Your task to perform on an android device: turn vacation reply on in the gmail app Image 0: 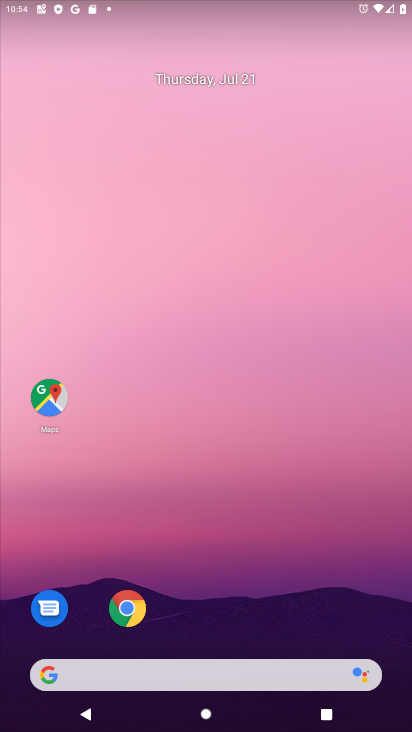
Step 0: drag from (301, 531) to (151, 3)
Your task to perform on an android device: turn vacation reply on in the gmail app Image 1: 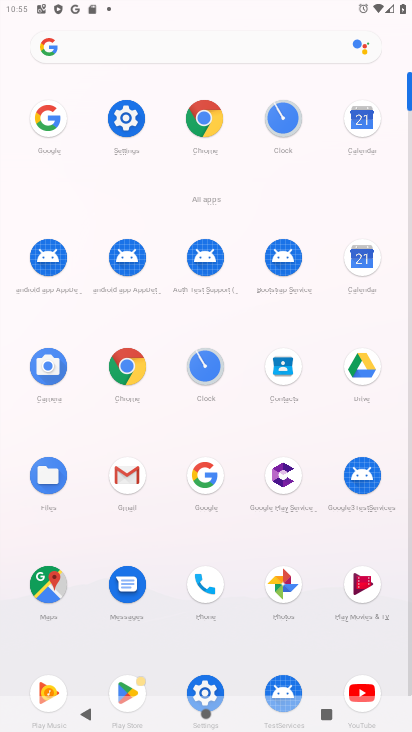
Step 1: click (127, 487)
Your task to perform on an android device: turn vacation reply on in the gmail app Image 2: 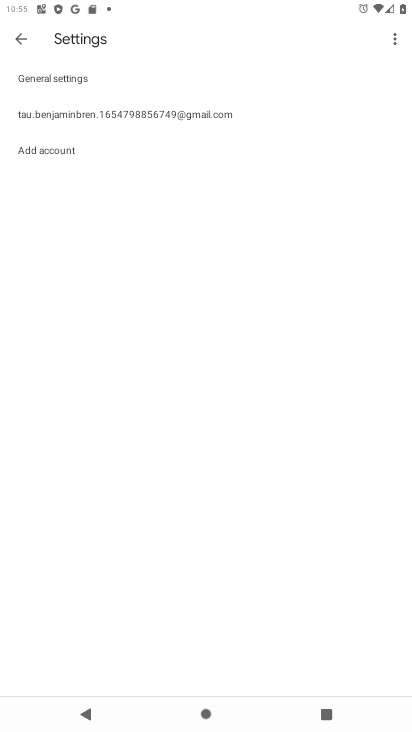
Step 2: click (112, 119)
Your task to perform on an android device: turn vacation reply on in the gmail app Image 3: 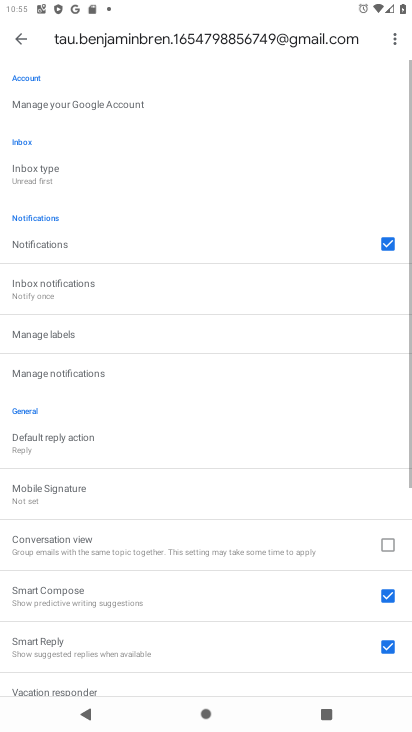
Step 3: drag from (134, 659) to (198, 48)
Your task to perform on an android device: turn vacation reply on in the gmail app Image 4: 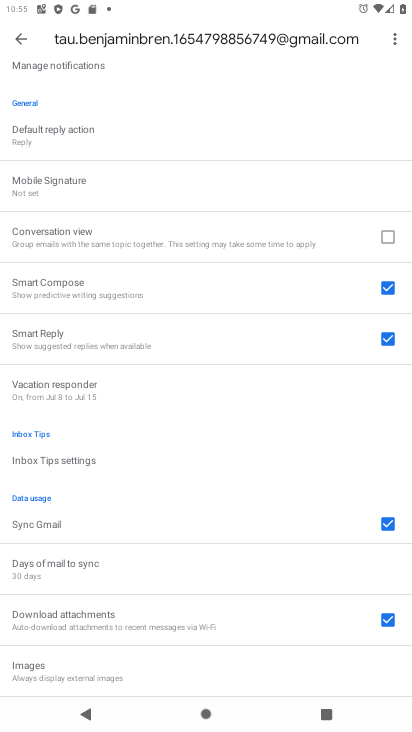
Step 4: click (80, 387)
Your task to perform on an android device: turn vacation reply on in the gmail app Image 5: 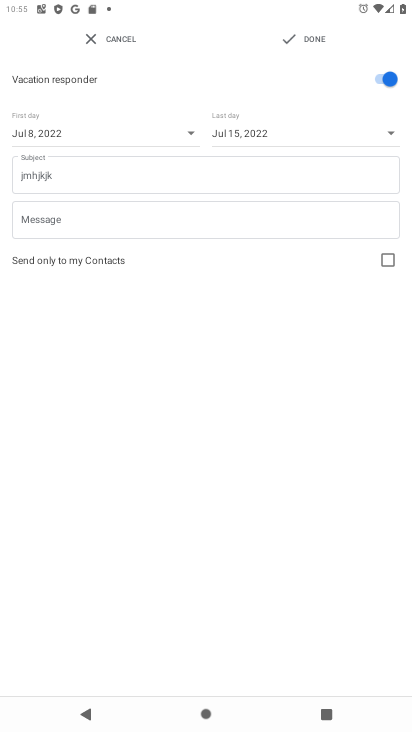
Step 5: task complete